Your task to perform on an android device: Check the settings for the Uber app Image 0: 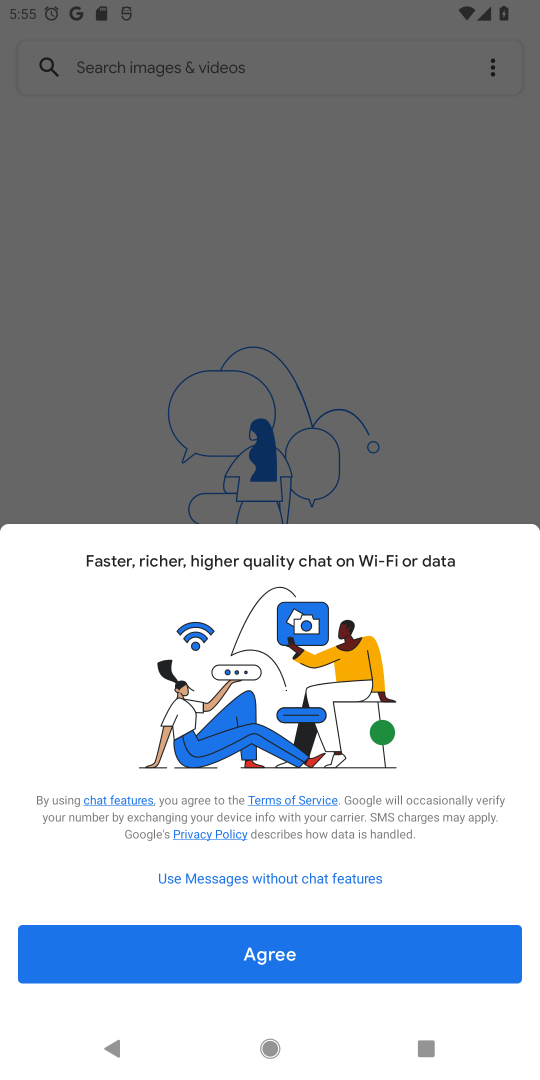
Step 0: press home button
Your task to perform on an android device: Check the settings for the Uber app Image 1: 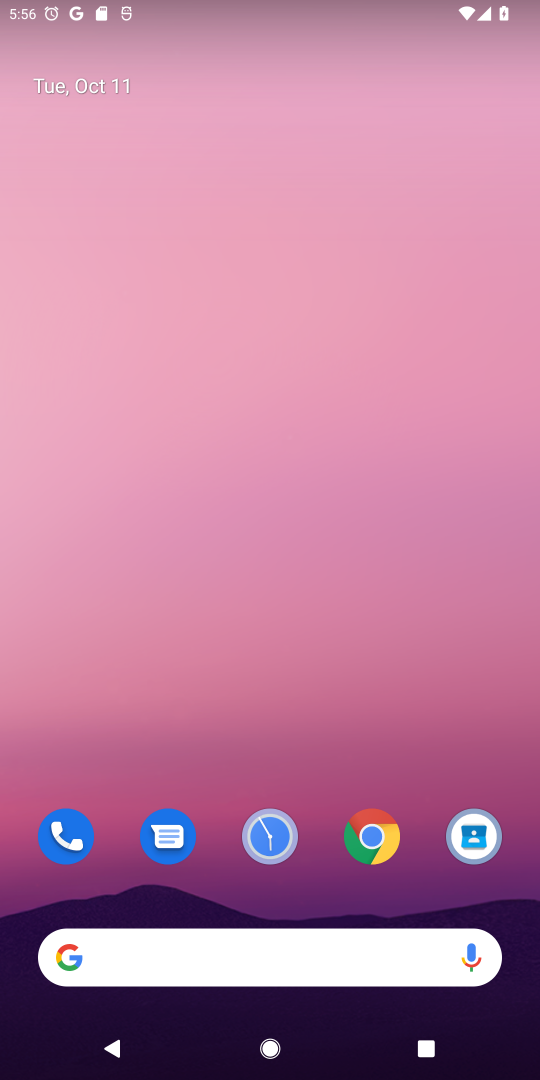
Step 1: click (339, 966)
Your task to perform on an android device: Check the settings for the Uber app Image 2: 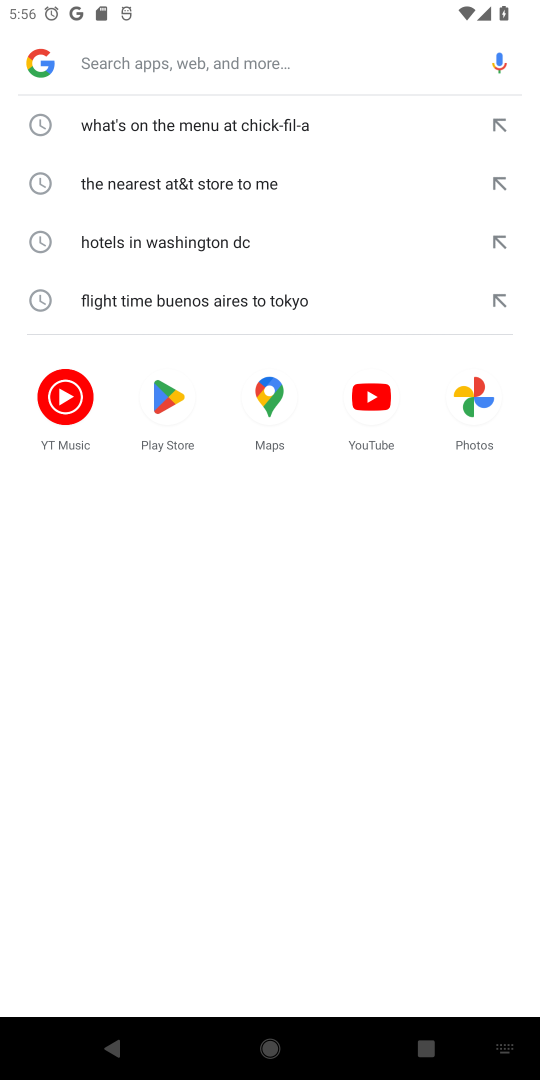
Step 2: type "Check the settings for the Uber app"
Your task to perform on an android device: Check the settings for the Uber app Image 3: 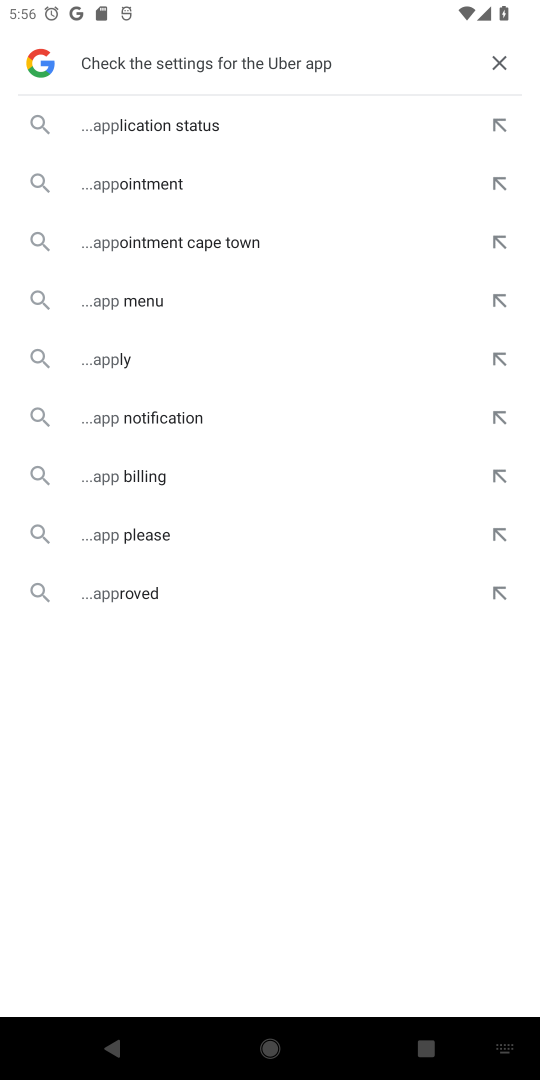
Step 3: click (287, 119)
Your task to perform on an android device: Check the settings for the Uber app Image 4: 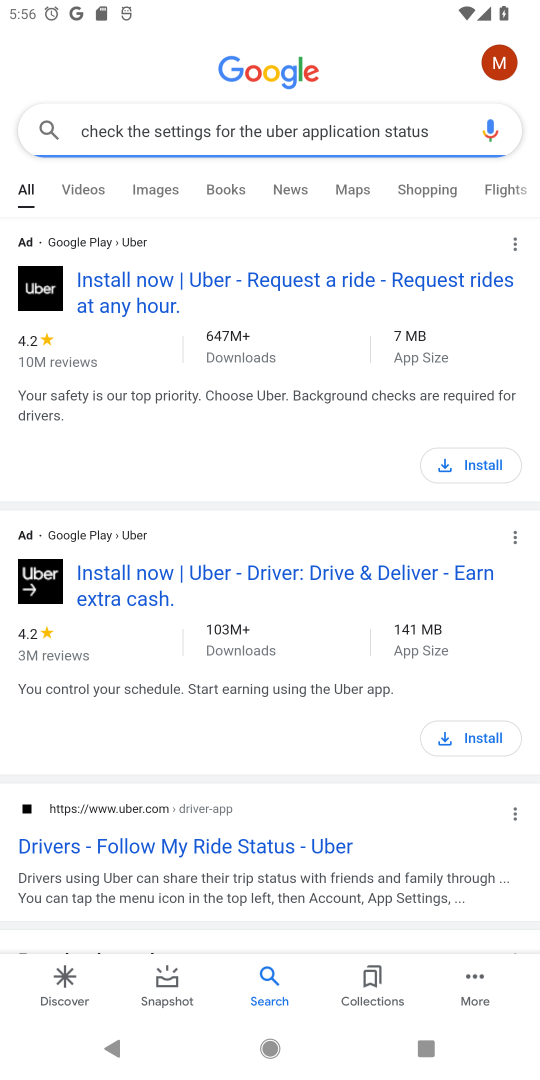
Step 4: task complete